Your task to perform on an android device: Go to Android settings Image 0: 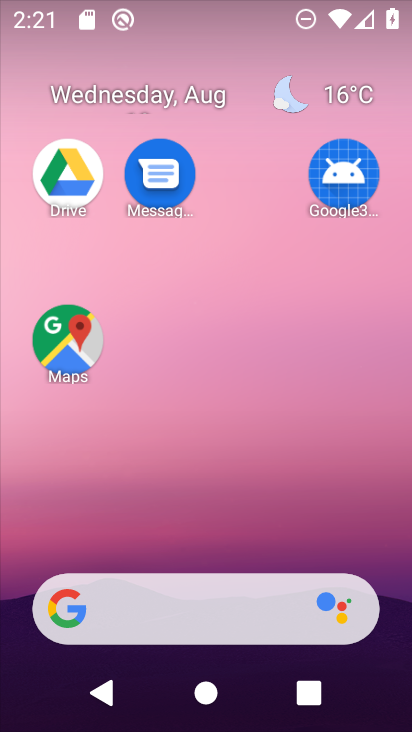
Step 0: drag from (206, 434) to (201, 24)
Your task to perform on an android device: Go to Android settings Image 1: 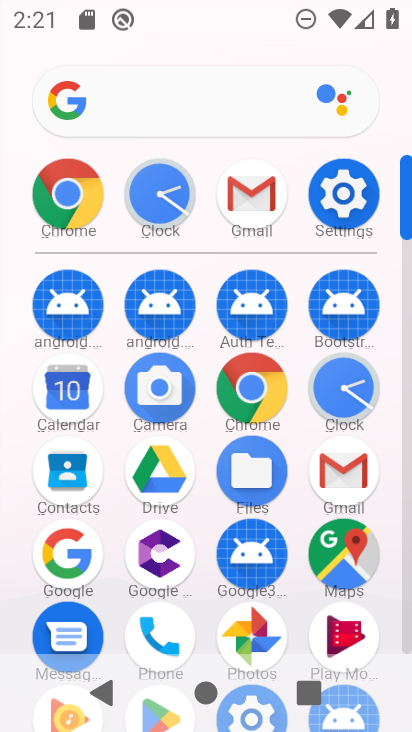
Step 1: click (338, 186)
Your task to perform on an android device: Go to Android settings Image 2: 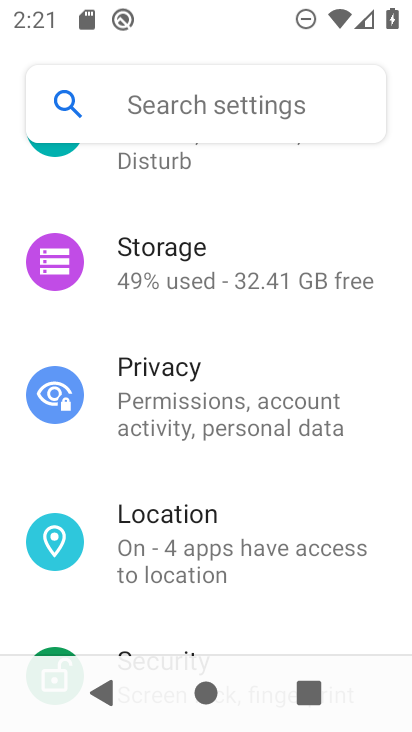
Step 2: task complete